Your task to perform on an android device: turn on sleep mode Image 0: 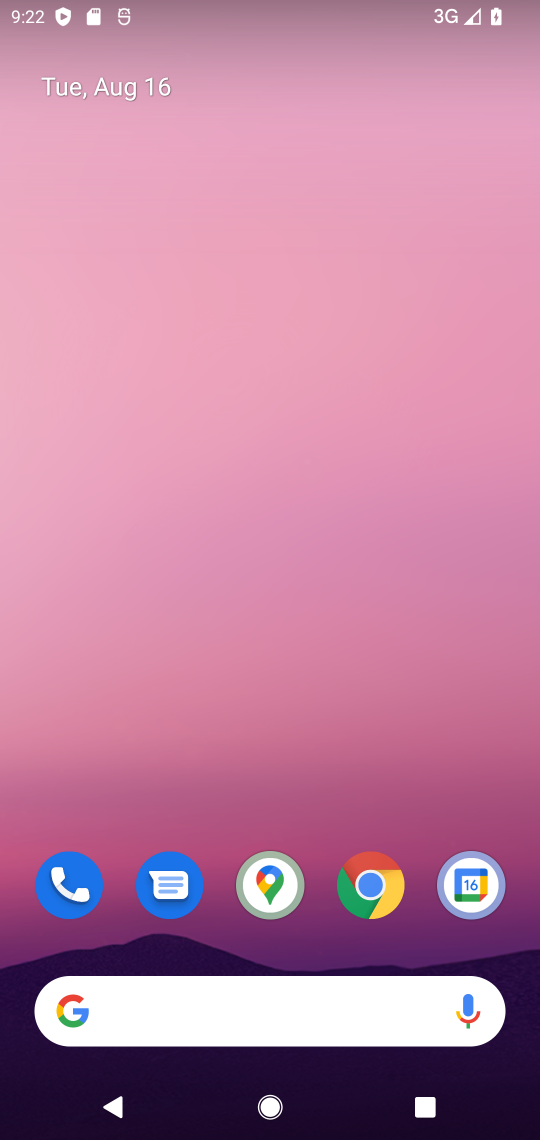
Step 0: drag from (224, 899) to (210, 290)
Your task to perform on an android device: turn on sleep mode Image 1: 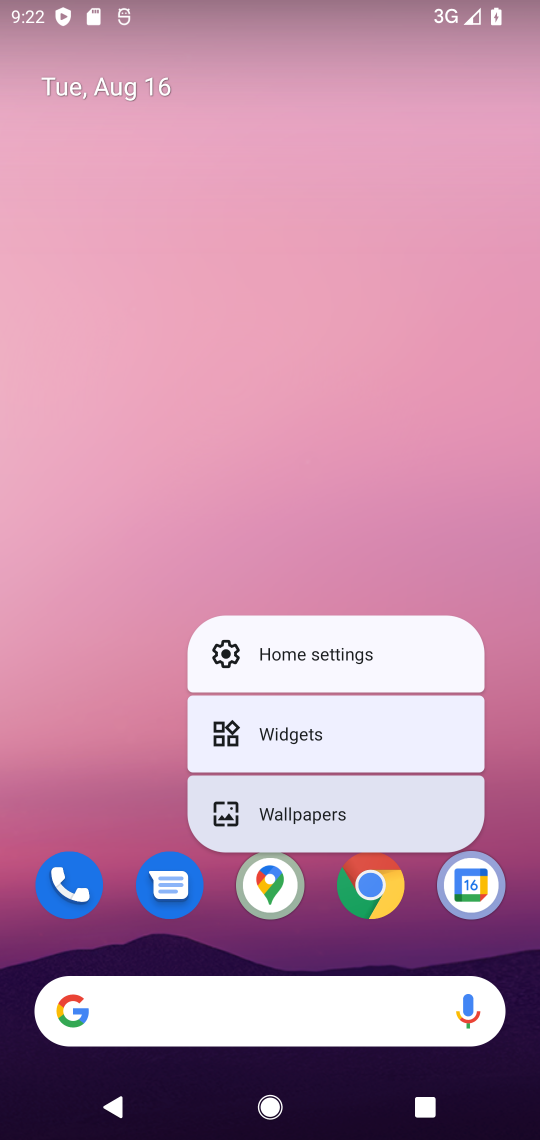
Step 1: click (242, 944)
Your task to perform on an android device: turn on sleep mode Image 2: 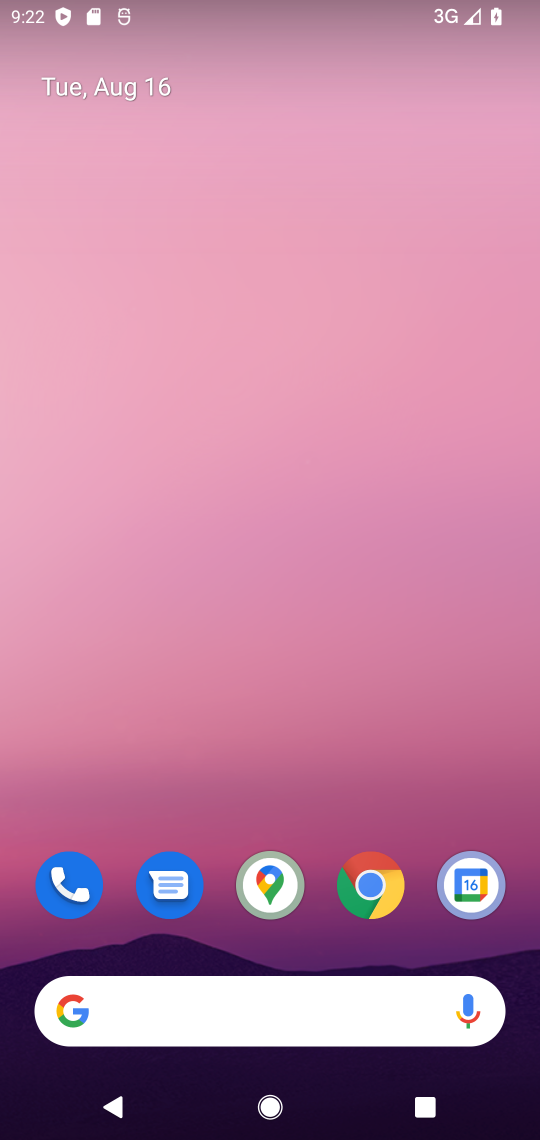
Step 2: drag from (242, 931) to (224, 51)
Your task to perform on an android device: turn on sleep mode Image 3: 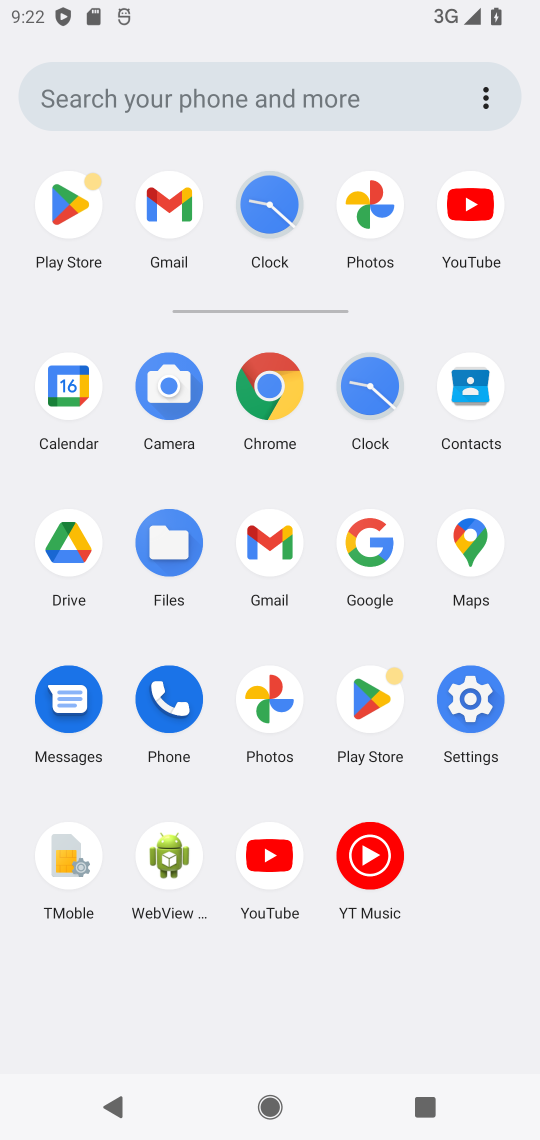
Step 3: click (471, 713)
Your task to perform on an android device: turn on sleep mode Image 4: 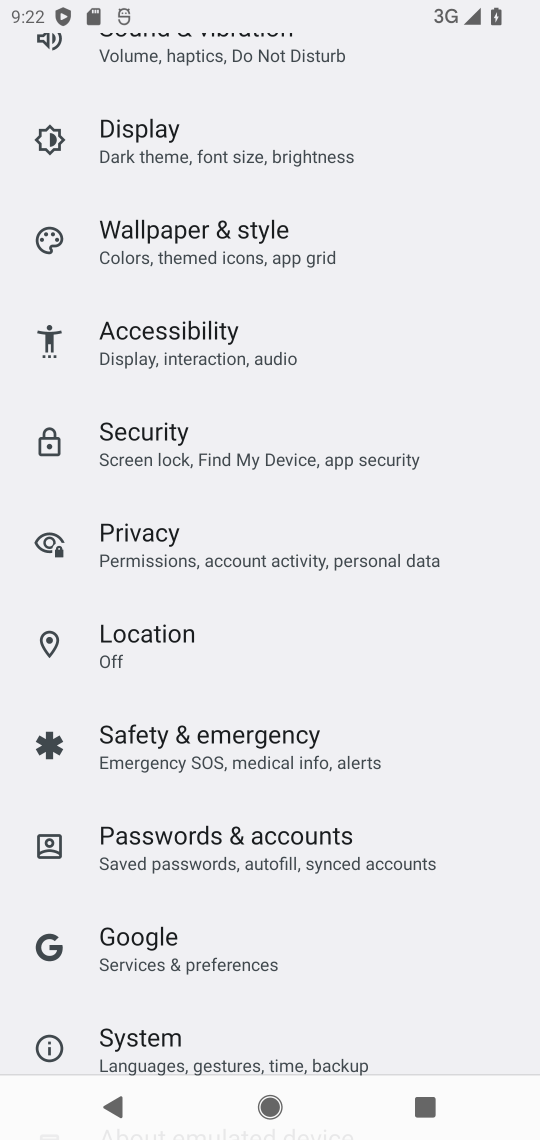
Step 4: task complete